Your task to perform on an android device: check storage Image 0: 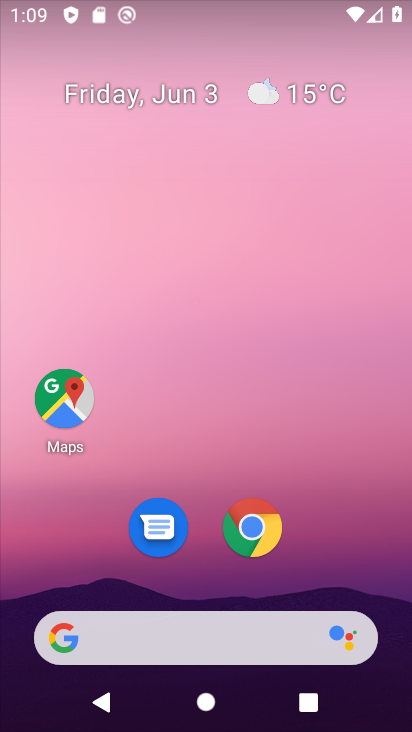
Step 0: drag from (321, 557) to (321, 134)
Your task to perform on an android device: check storage Image 1: 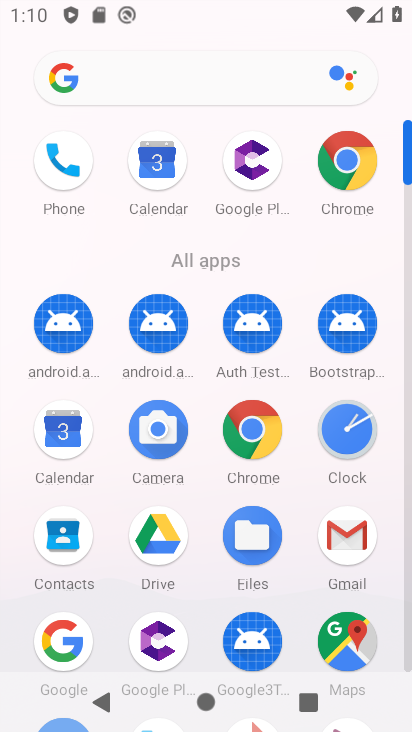
Step 1: click (296, 450)
Your task to perform on an android device: check storage Image 2: 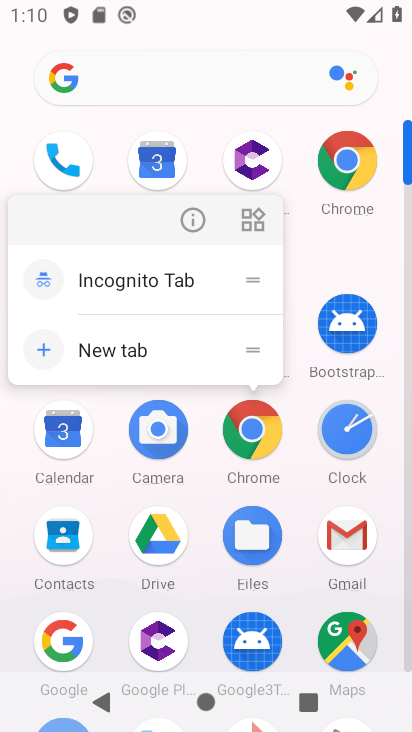
Step 2: click (336, 258)
Your task to perform on an android device: check storage Image 3: 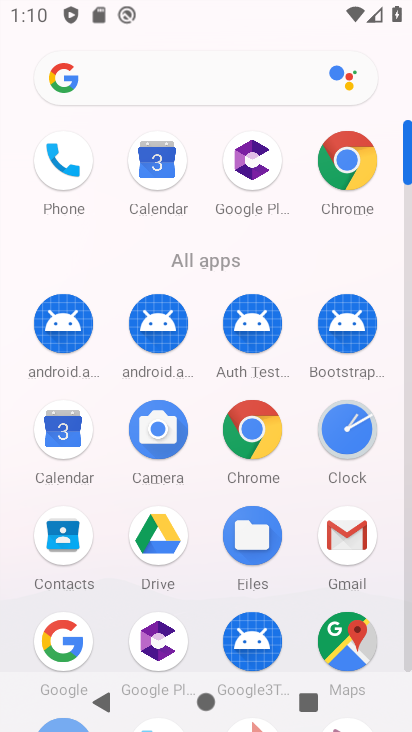
Step 3: drag from (343, 253) to (367, 45)
Your task to perform on an android device: check storage Image 4: 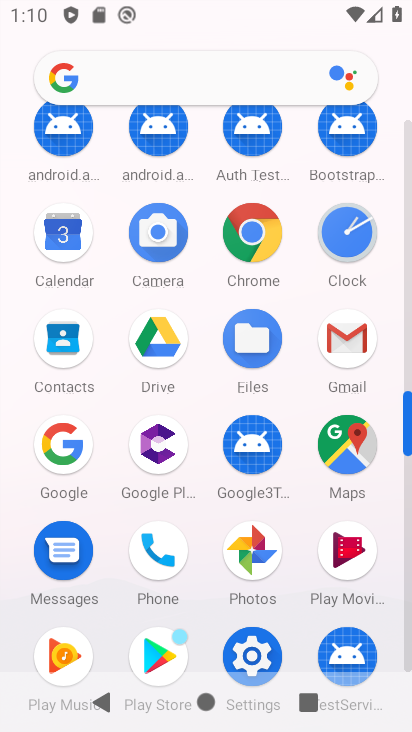
Step 4: click (264, 640)
Your task to perform on an android device: check storage Image 5: 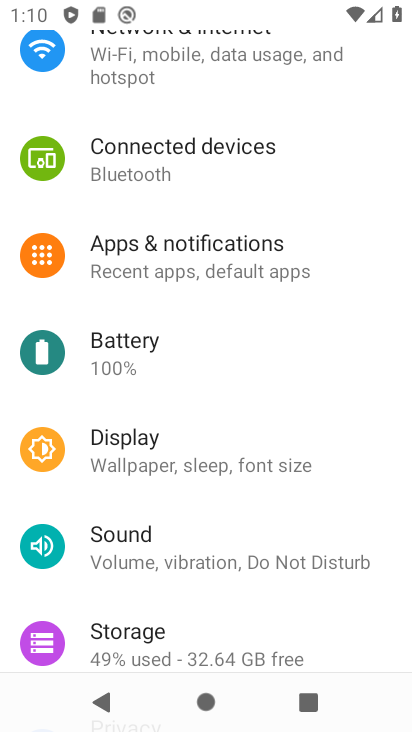
Step 5: click (180, 633)
Your task to perform on an android device: check storage Image 6: 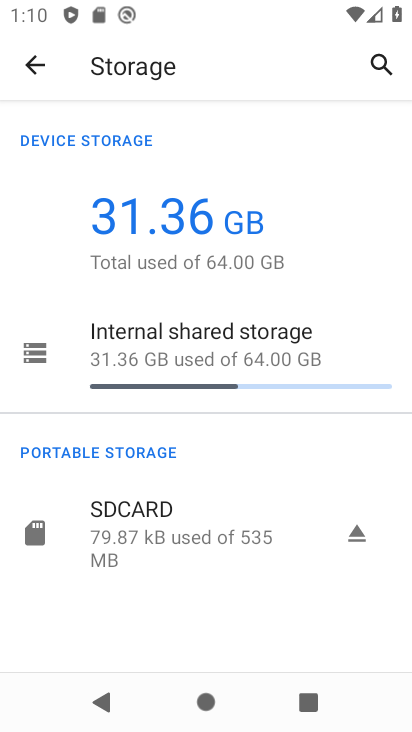
Step 6: task complete